Your task to perform on an android device: see tabs open on other devices in the chrome app Image 0: 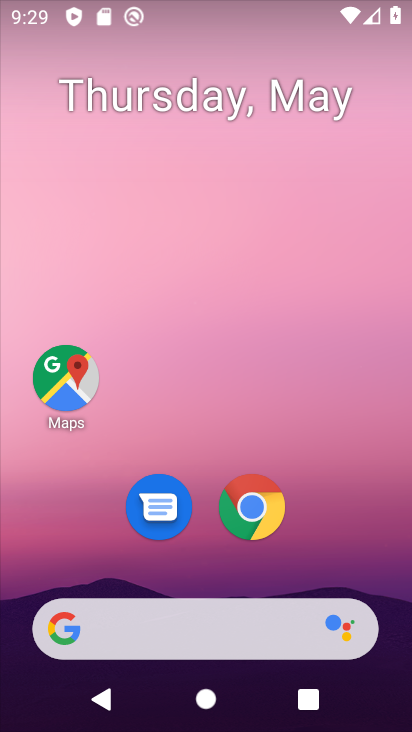
Step 0: click (252, 518)
Your task to perform on an android device: see tabs open on other devices in the chrome app Image 1: 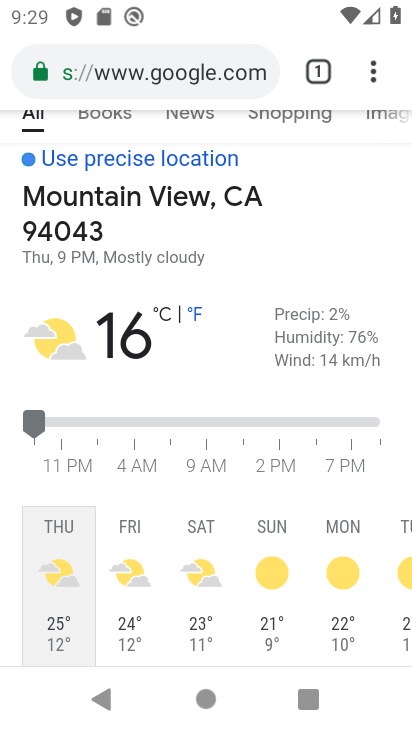
Step 1: click (367, 70)
Your task to perform on an android device: see tabs open on other devices in the chrome app Image 2: 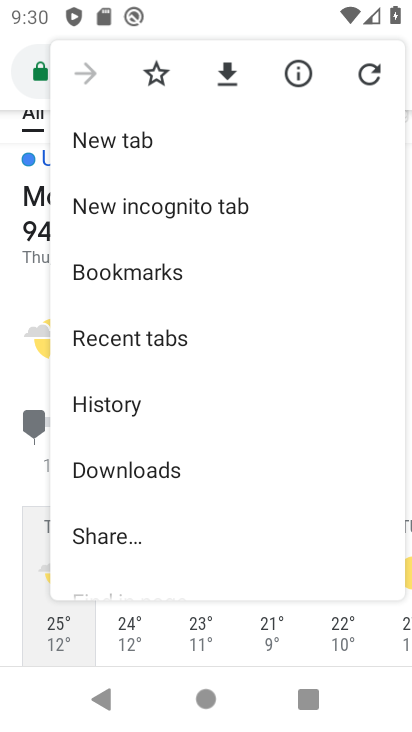
Step 2: click (203, 342)
Your task to perform on an android device: see tabs open on other devices in the chrome app Image 3: 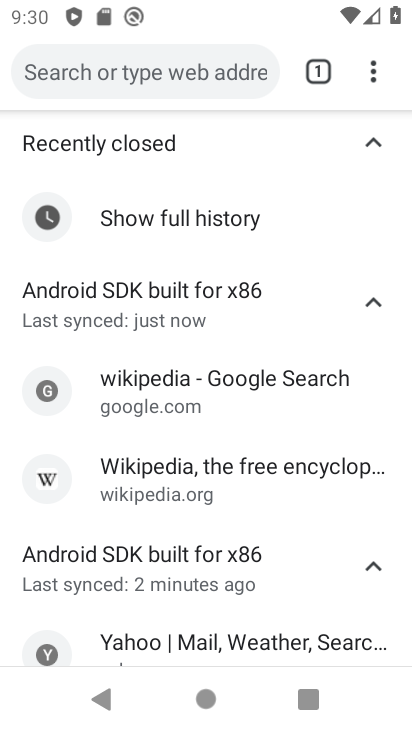
Step 3: task complete